Your task to perform on an android device: turn on wifi Image 0: 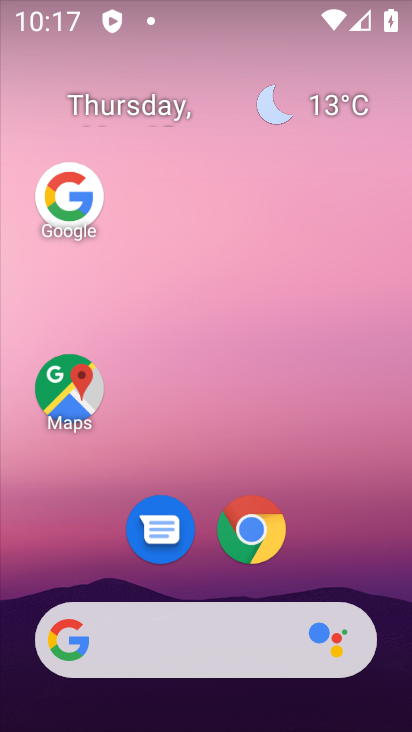
Step 0: drag from (373, 540) to (396, 607)
Your task to perform on an android device: turn on wifi Image 1: 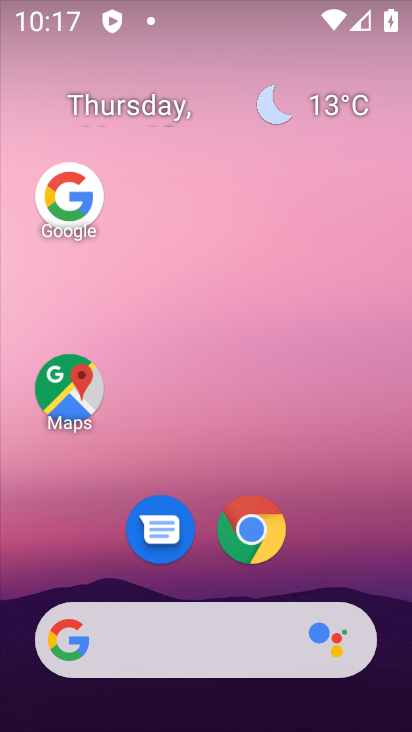
Step 1: drag from (344, 559) to (272, 7)
Your task to perform on an android device: turn on wifi Image 2: 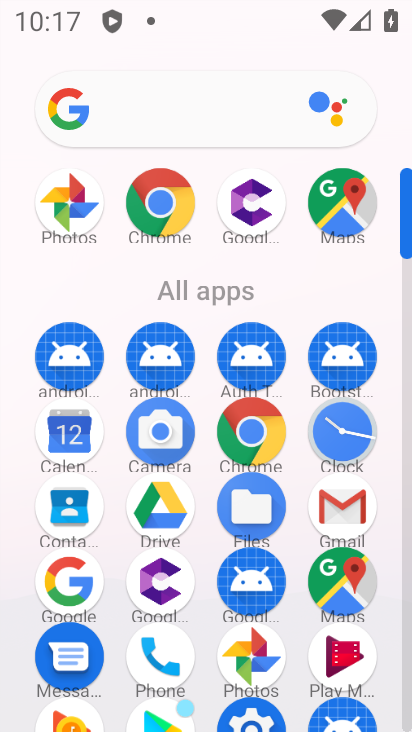
Step 2: drag from (167, 622) to (274, 247)
Your task to perform on an android device: turn on wifi Image 3: 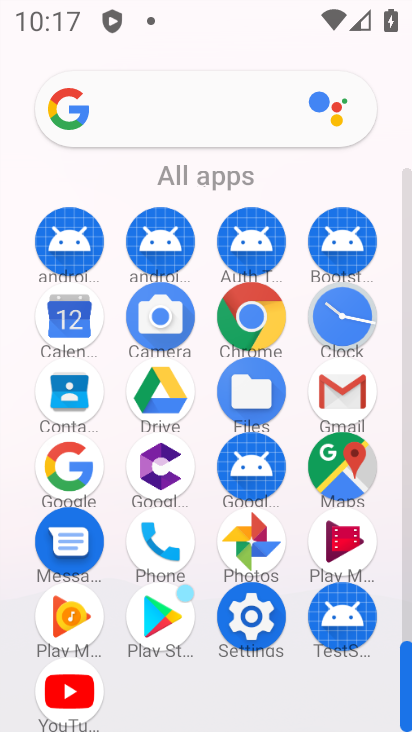
Step 3: drag from (280, 624) to (239, 197)
Your task to perform on an android device: turn on wifi Image 4: 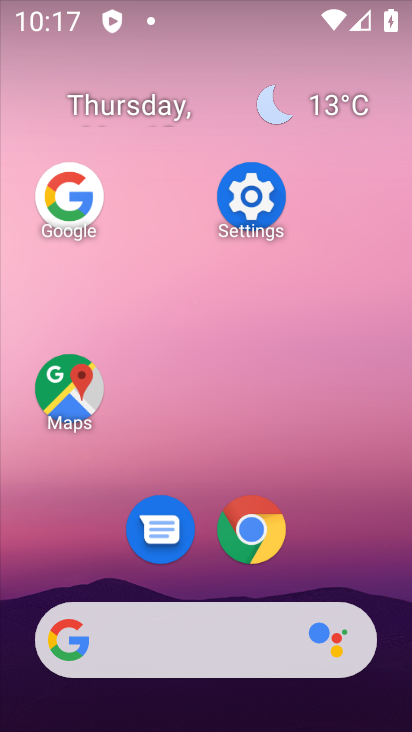
Step 4: click (271, 198)
Your task to perform on an android device: turn on wifi Image 5: 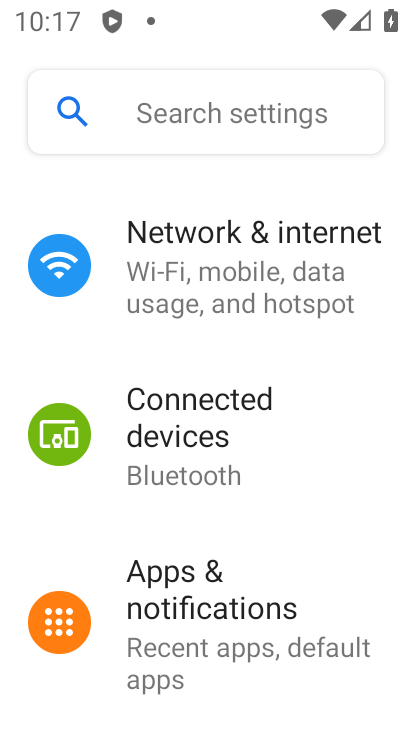
Step 5: click (207, 277)
Your task to perform on an android device: turn on wifi Image 6: 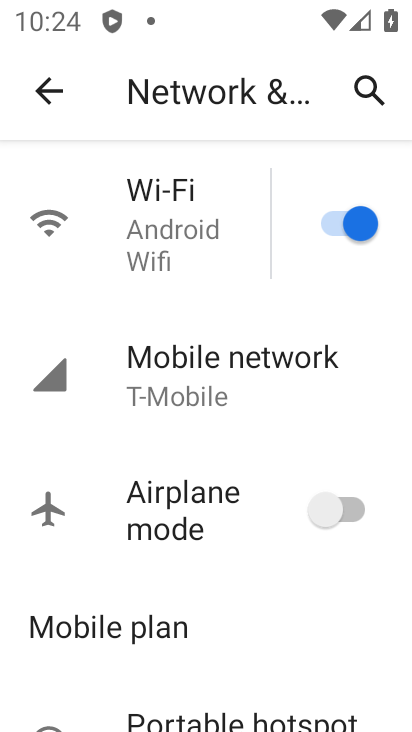
Step 6: task complete